Your task to perform on an android device: turn off notifications settings in the gmail app Image 0: 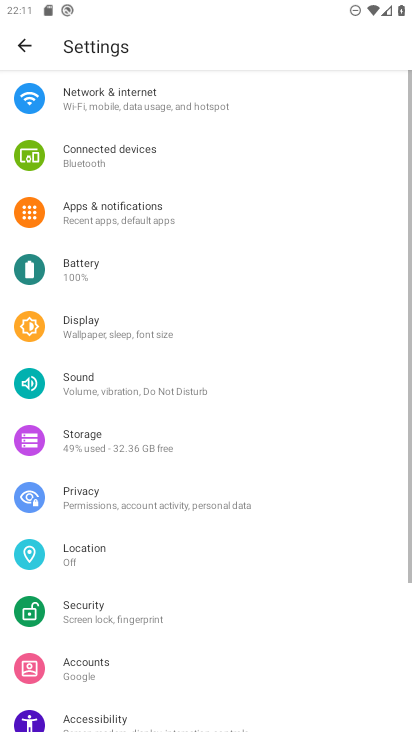
Step 0: press home button
Your task to perform on an android device: turn off notifications settings in the gmail app Image 1: 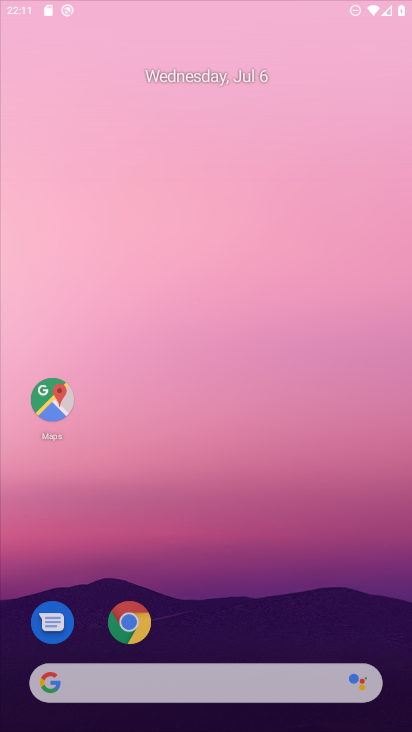
Step 1: drag from (320, 648) to (256, 118)
Your task to perform on an android device: turn off notifications settings in the gmail app Image 2: 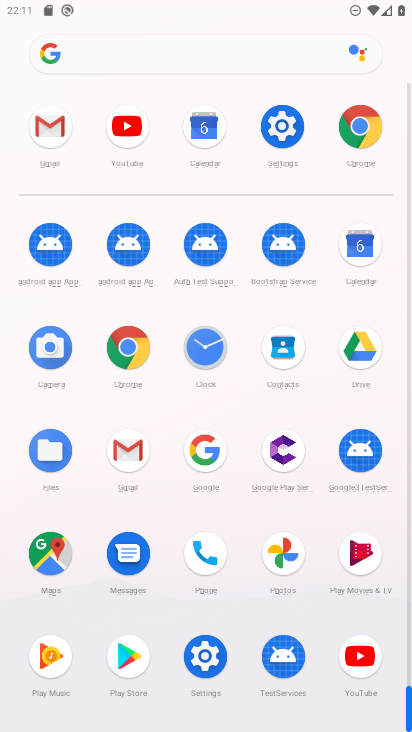
Step 2: click (43, 137)
Your task to perform on an android device: turn off notifications settings in the gmail app Image 3: 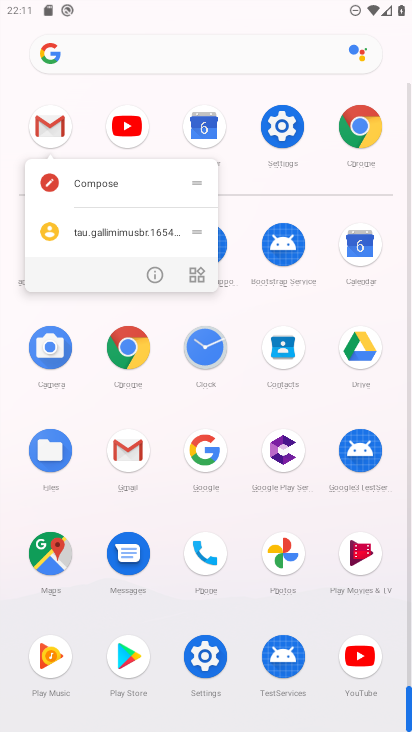
Step 3: click (149, 275)
Your task to perform on an android device: turn off notifications settings in the gmail app Image 4: 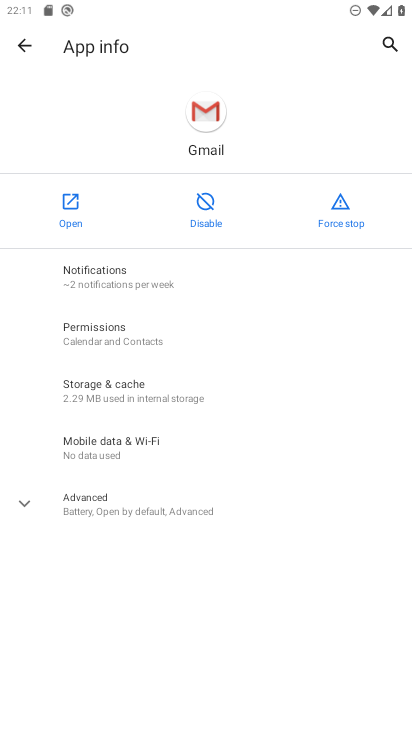
Step 4: click (156, 273)
Your task to perform on an android device: turn off notifications settings in the gmail app Image 5: 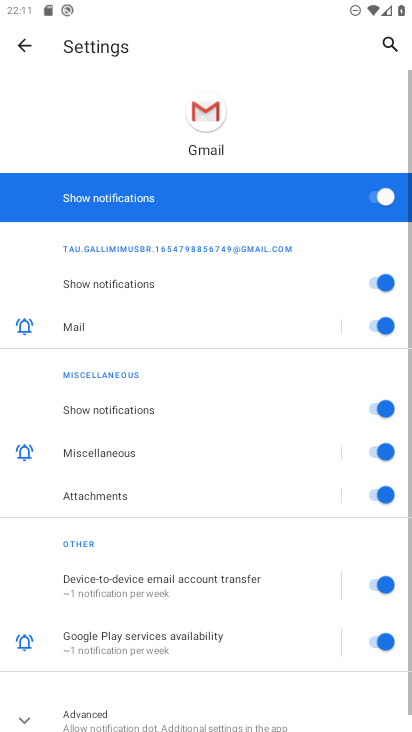
Step 5: click (317, 194)
Your task to perform on an android device: turn off notifications settings in the gmail app Image 6: 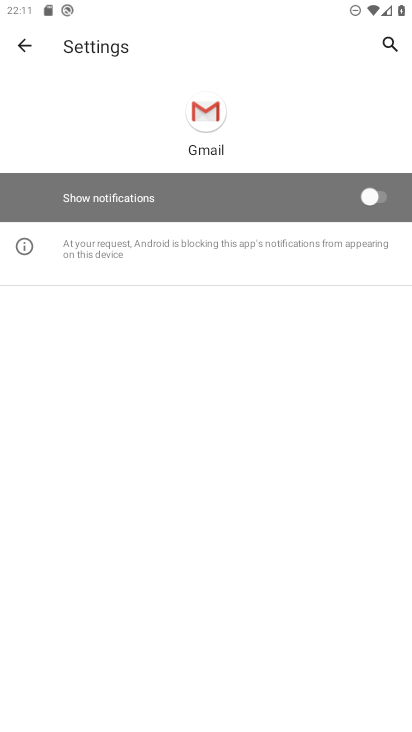
Step 6: task complete